Your task to perform on an android device: delete the emails in spam in the gmail app Image 0: 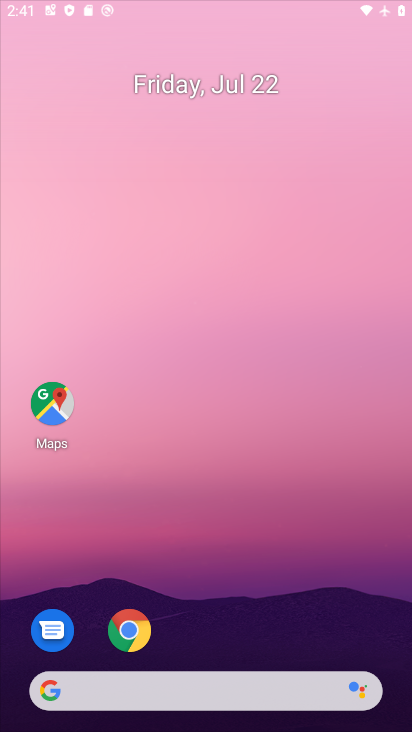
Step 0: press home button
Your task to perform on an android device: delete the emails in spam in the gmail app Image 1: 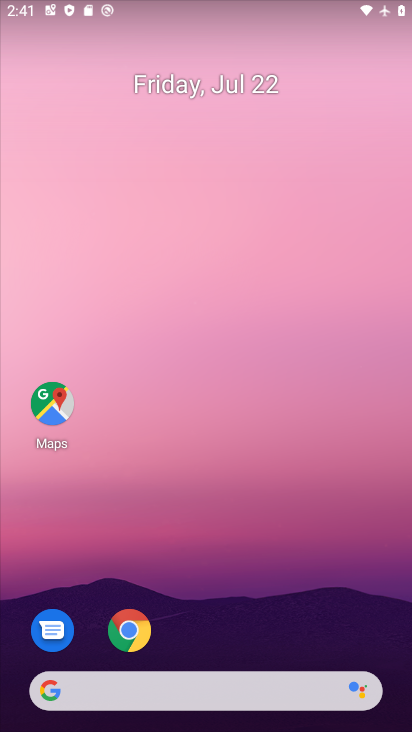
Step 1: drag from (212, 667) to (193, 5)
Your task to perform on an android device: delete the emails in spam in the gmail app Image 2: 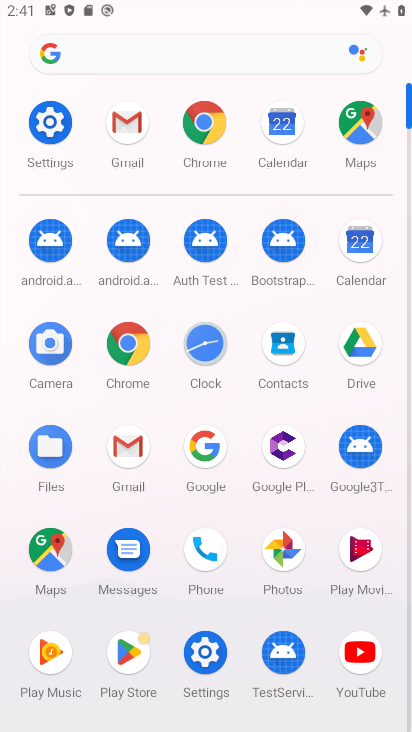
Step 2: click (143, 442)
Your task to perform on an android device: delete the emails in spam in the gmail app Image 3: 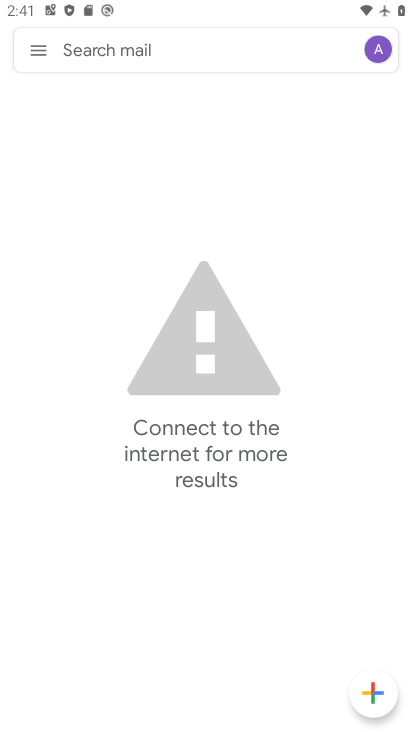
Step 3: drag from (166, 175) to (168, 543)
Your task to perform on an android device: delete the emails in spam in the gmail app Image 4: 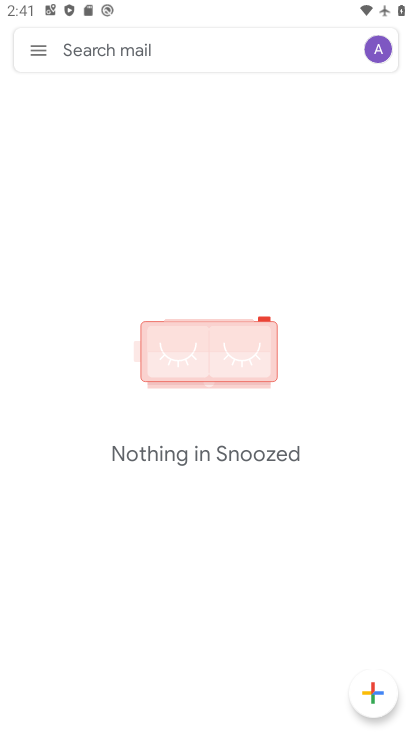
Step 4: drag from (136, 156) to (124, 647)
Your task to perform on an android device: delete the emails in spam in the gmail app Image 5: 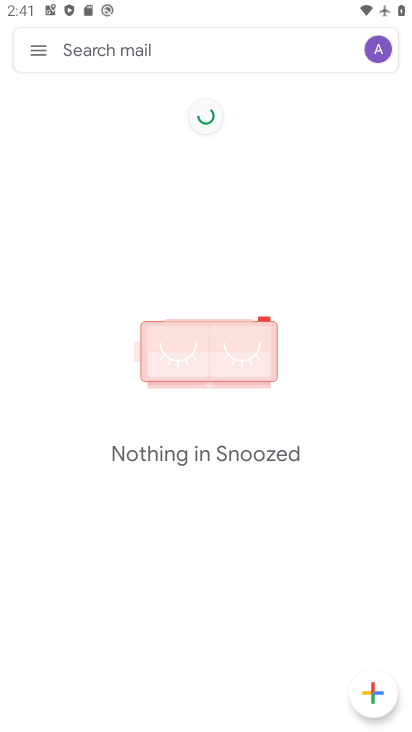
Step 5: click (42, 55)
Your task to perform on an android device: delete the emails in spam in the gmail app Image 6: 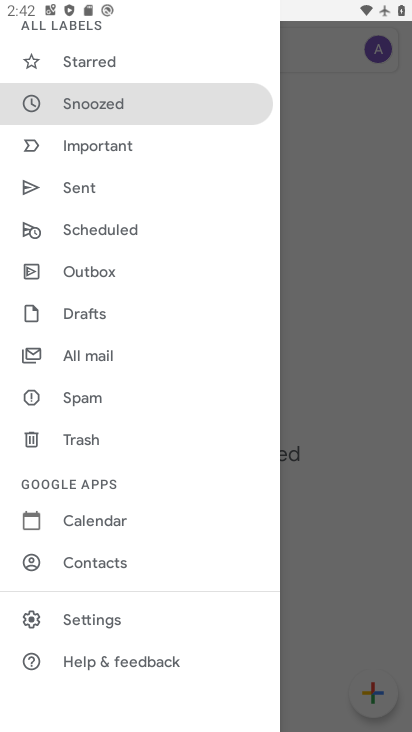
Step 6: click (96, 363)
Your task to perform on an android device: delete the emails in spam in the gmail app Image 7: 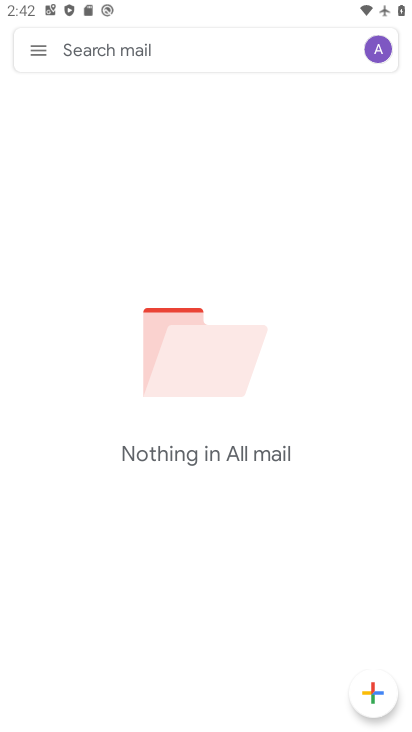
Step 7: drag from (175, 201) to (152, 496)
Your task to perform on an android device: delete the emails in spam in the gmail app Image 8: 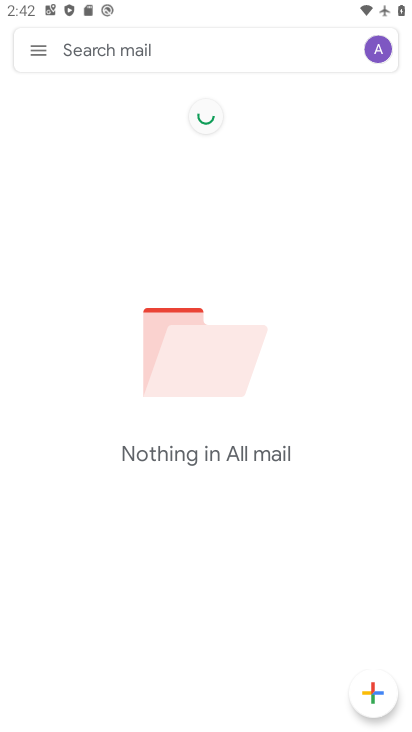
Step 8: click (28, 47)
Your task to perform on an android device: delete the emails in spam in the gmail app Image 9: 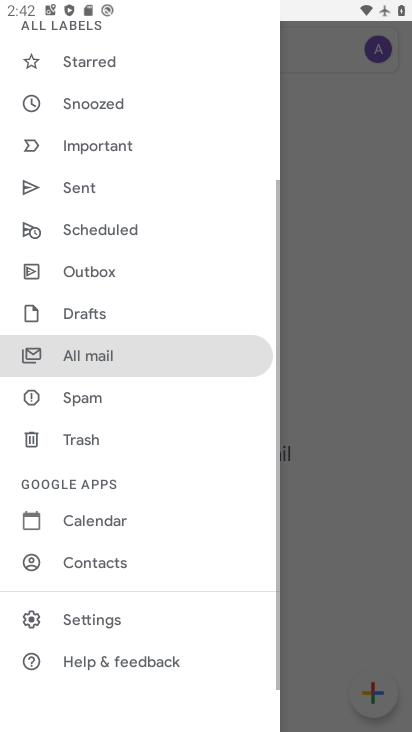
Step 9: click (106, 397)
Your task to perform on an android device: delete the emails in spam in the gmail app Image 10: 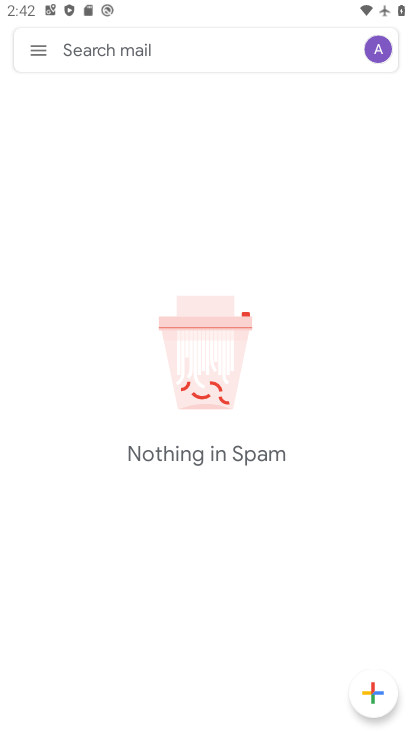
Step 10: task complete